Your task to perform on an android device: install app "The Home Depot" Image 0: 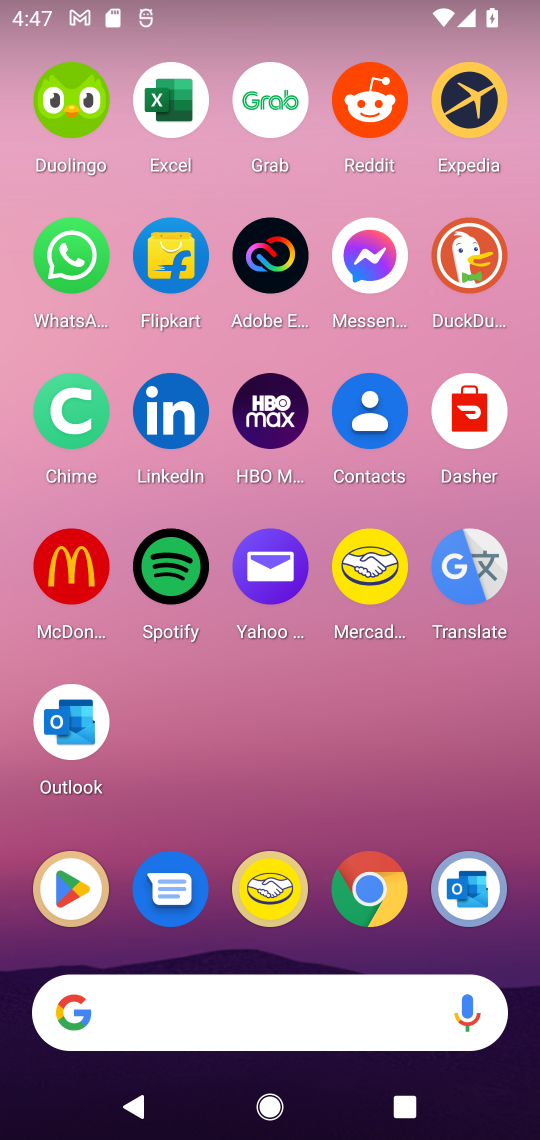
Step 0: drag from (393, 744) to (416, 50)
Your task to perform on an android device: install app "The Home Depot" Image 1: 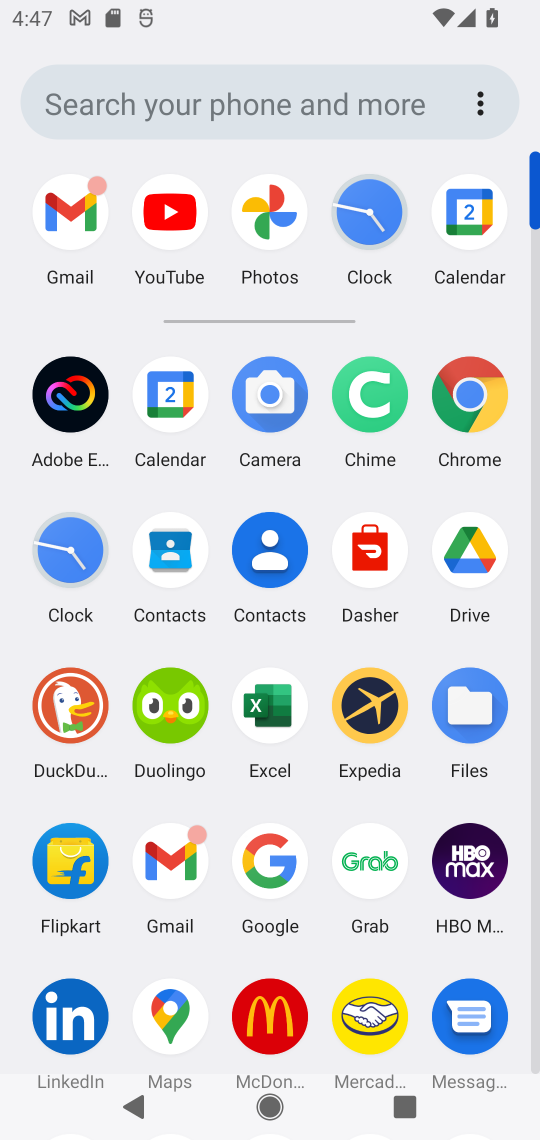
Step 1: drag from (516, 960) to (505, 397)
Your task to perform on an android device: install app "The Home Depot" Image 2: 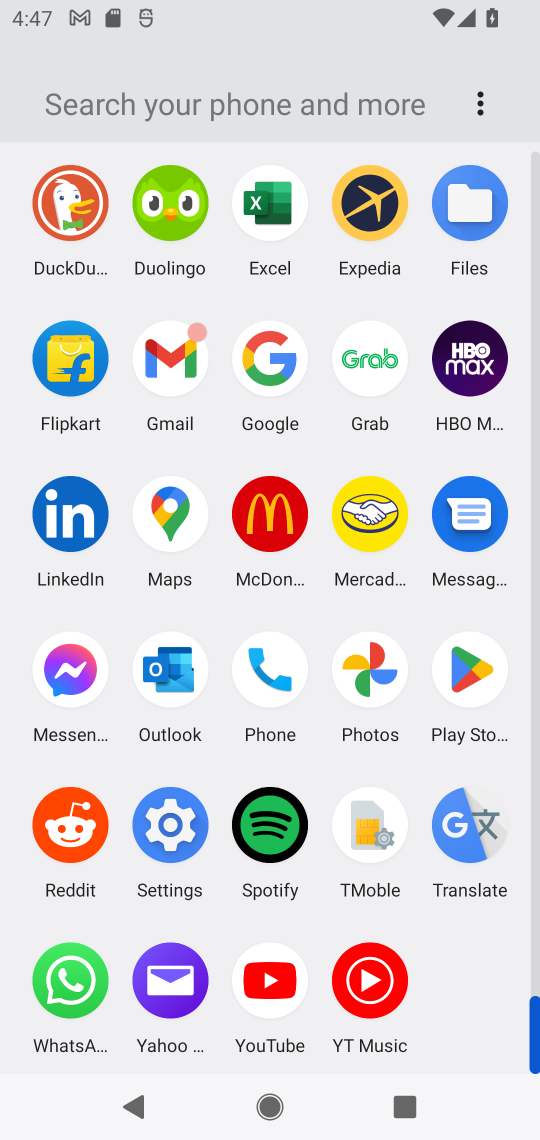
Step 2: click (482, 681)
Your task to perform on an android device: install app "The Home Depot" Image 3: 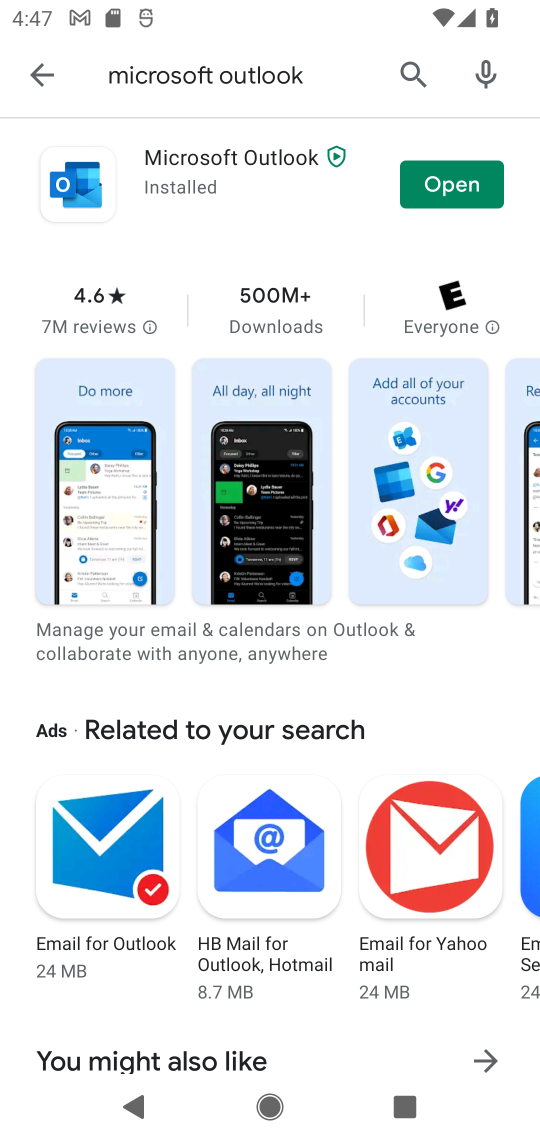
Step 3: click (417, 65)
Your task to perform on an android device: install app "The Home Depot" Image 4: 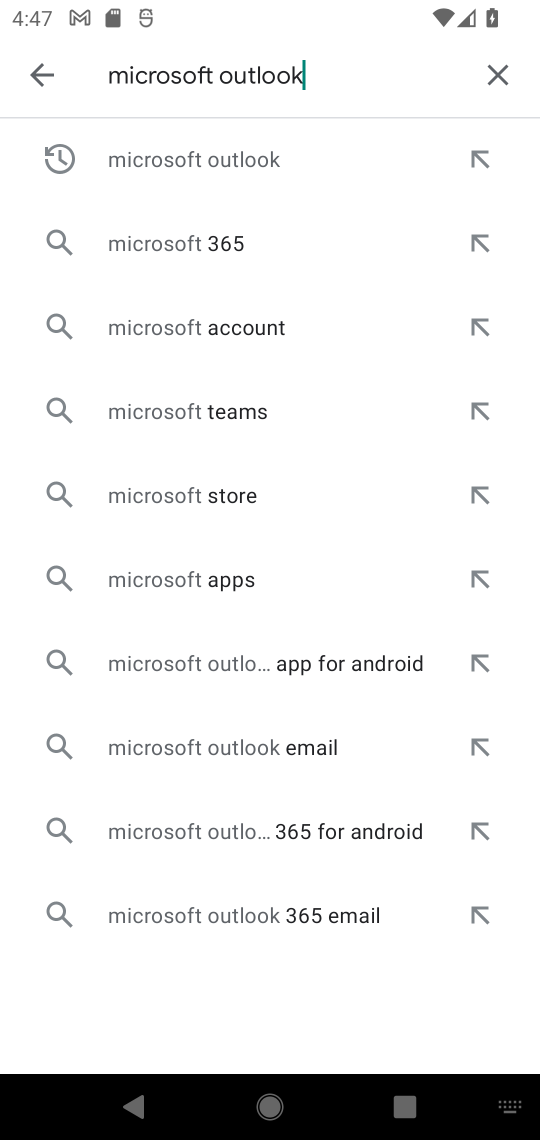
Step 4: click (504, 73)
Your task to perform on an android device: install app "The Home Depot" Image 5: 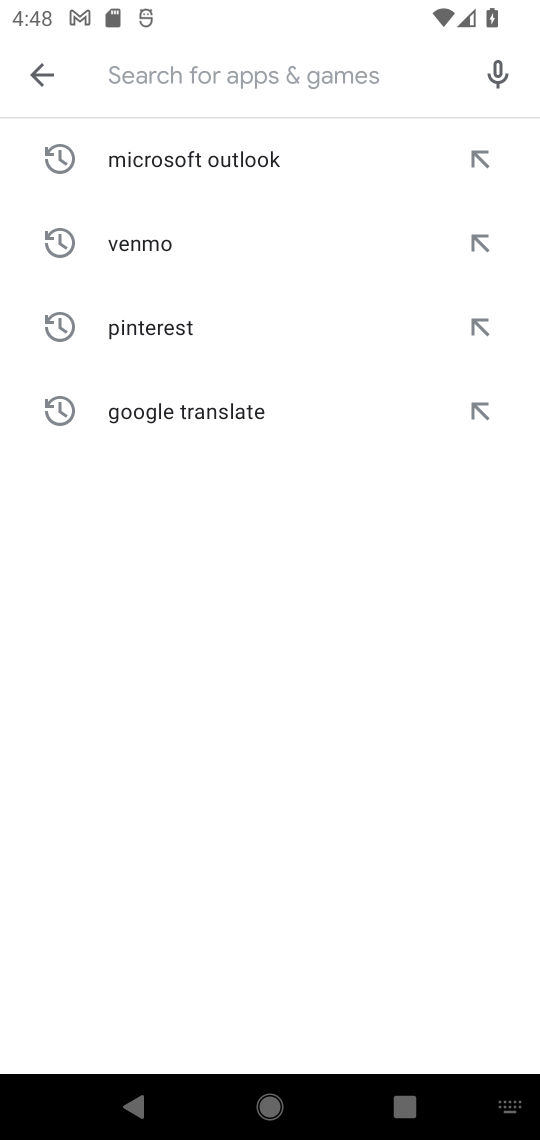
Step 5: type "the home depot"
Your task to perform on an android device: install app "The Home Depot" Image 6: 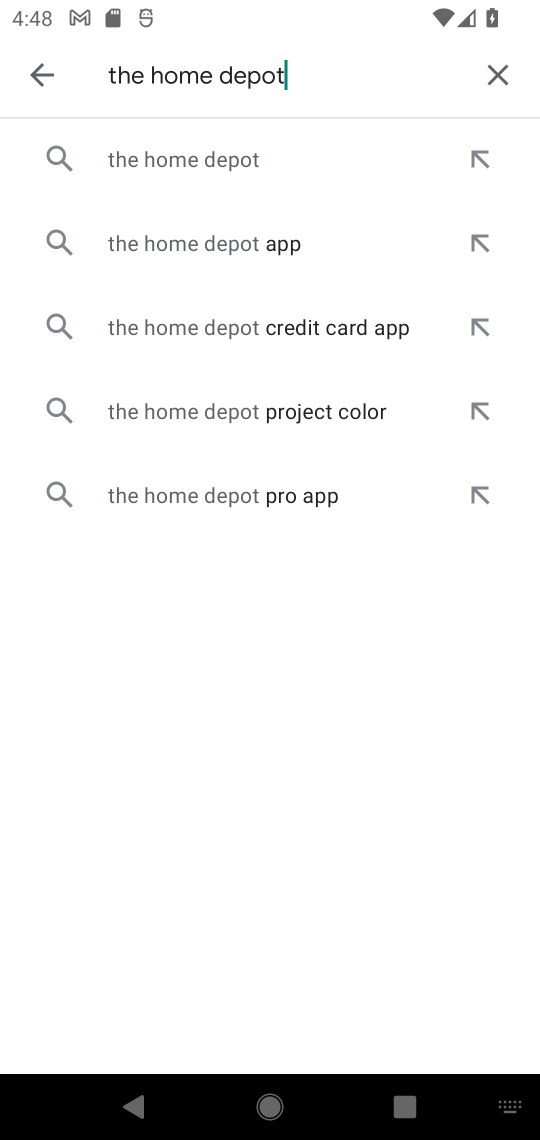
Step 6: click (256, 166)
Your task to perform on an android device: install app "The Home Depot" Image 7: 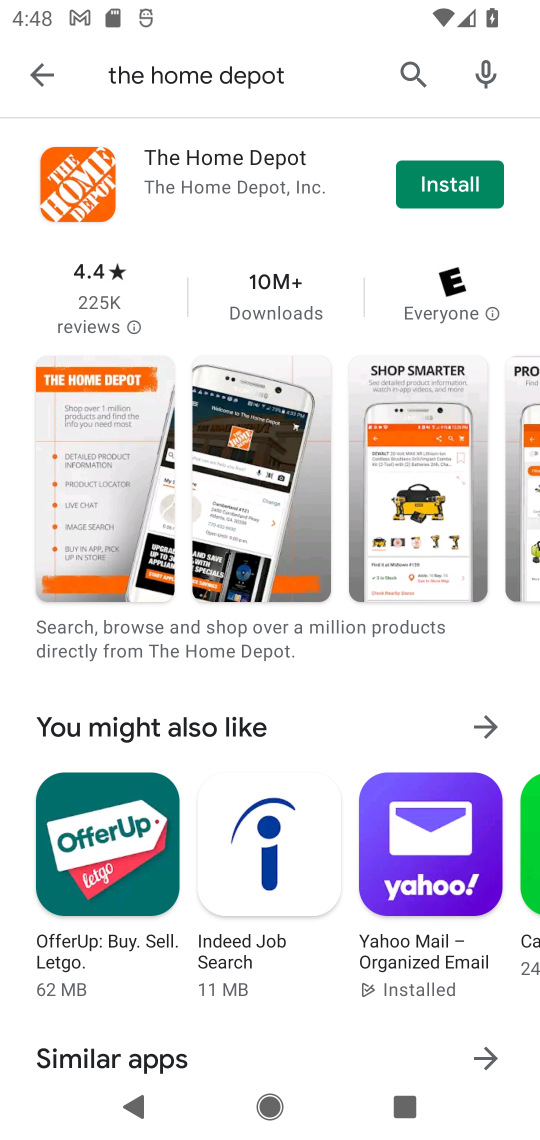
Step 7: click (450, 182)
Your task to perform on an android device: install app "The Home Depot" Image 8: 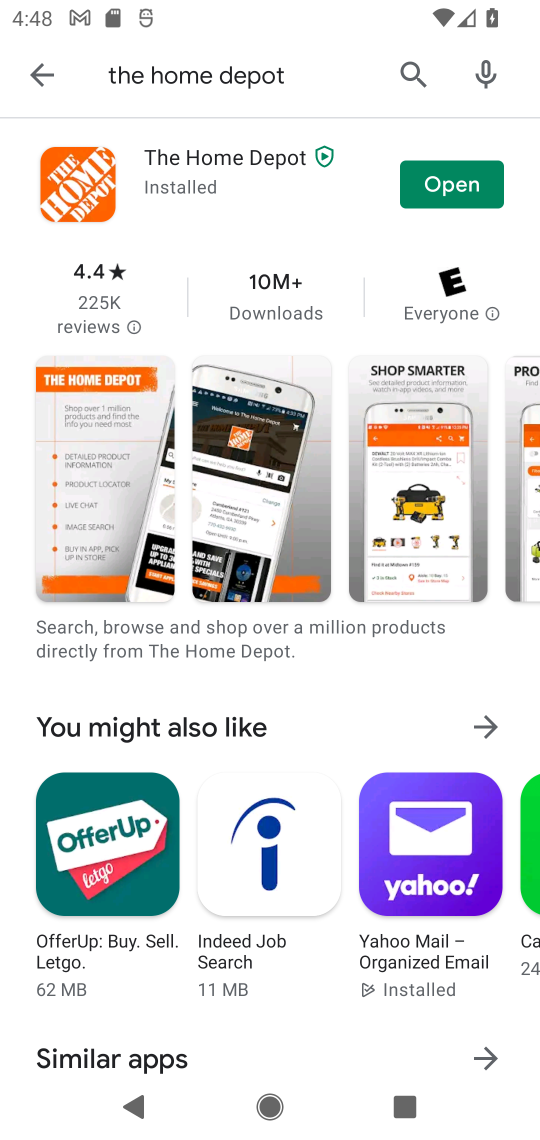
Step 8: task complete